Your task to perform on an android device: visit the assistant section in the google photos Image 0: 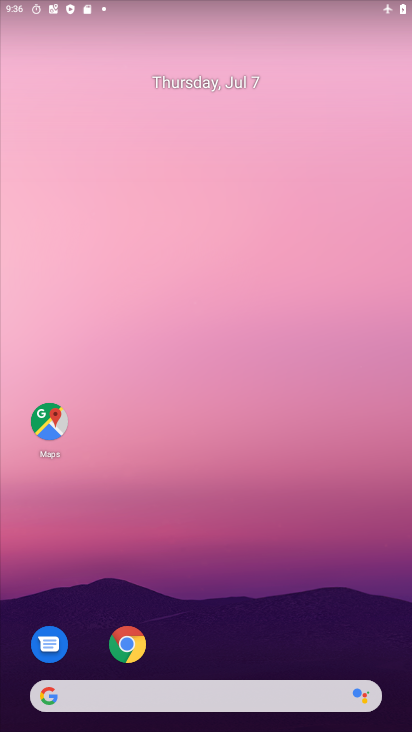
Step 0: drag from (251, 628) to (208, 119)
Your task to perform on an android device: visit the assistant section in the google photos Image 1: 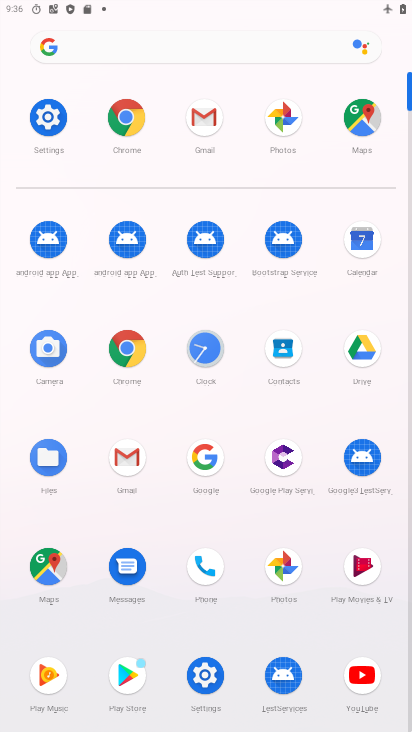
Step 1: click (284, 568)
Your task to perform on an android device: visit the assistant section in the google photos Image 2: 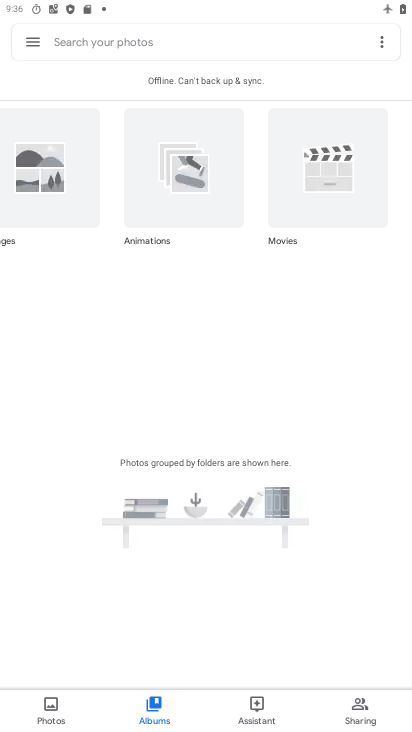
Step 2: click (245, 690)
Your task to perform on an android device: visit the assistant section in the google photos Image 3: 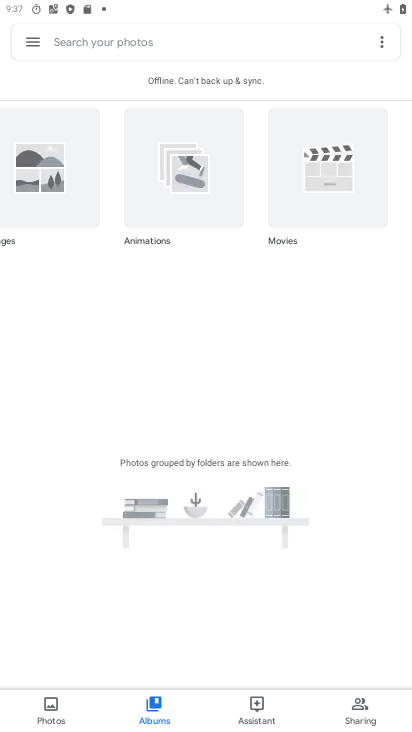
Step 3: click (248, 696)
Your task to perform on an android device: visit the assistant section in the google photos Image 4: 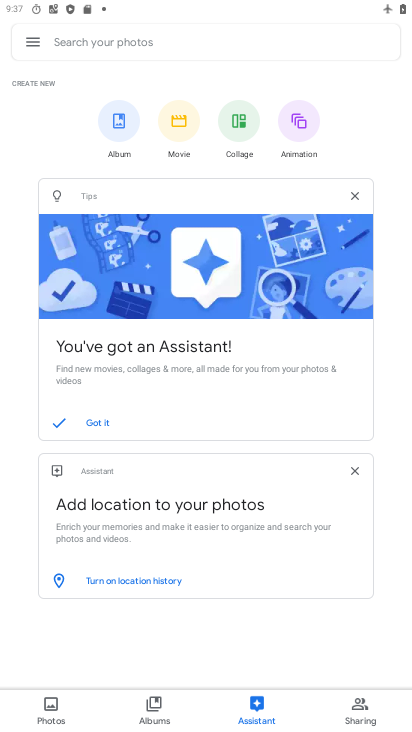
Step 4: task complete